Your task to perform on an android device: Open Android settings Image 0: 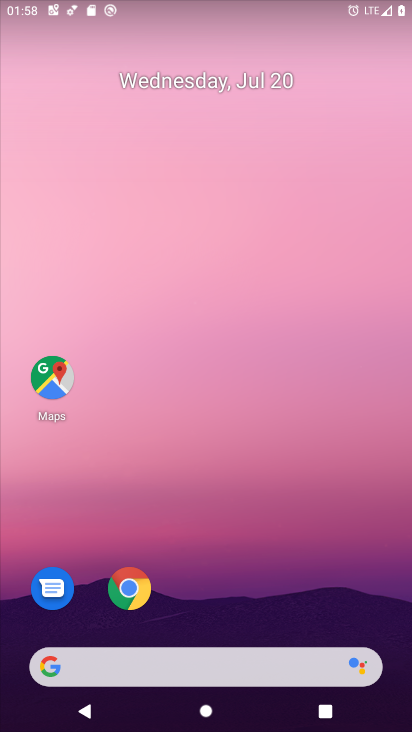
Step 0: drag from (267, 586) to (261, 267)
Your task to perform on an android device: Open Android settings Image 1: 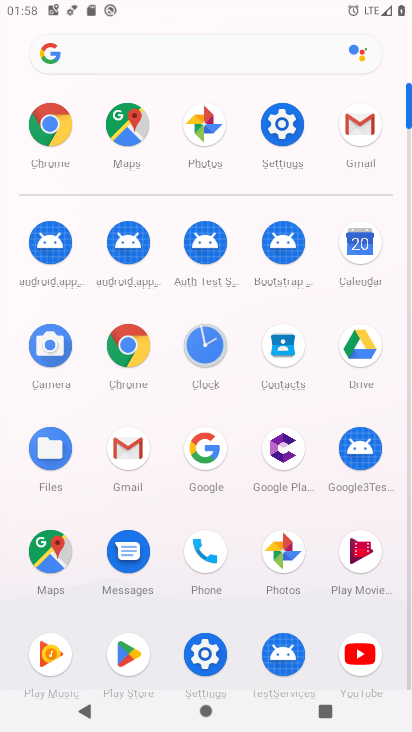
Step 1: click (280, 103)
Your task to perform on an android device: Open Android settings Image 2: 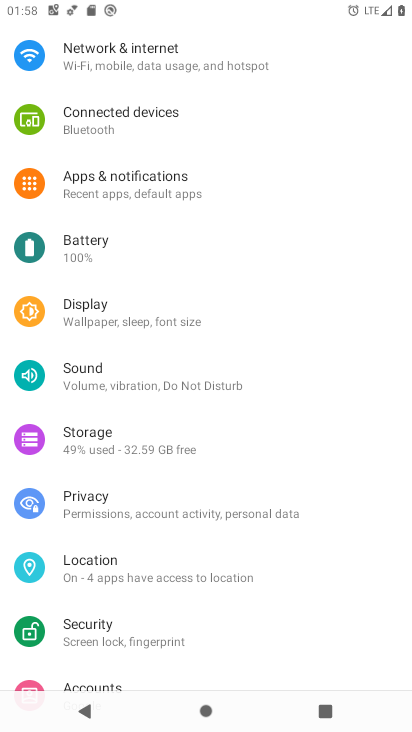
Step 2: task complete